Your task to perform on an android device: toggle javascript in the chrome app Image 0: 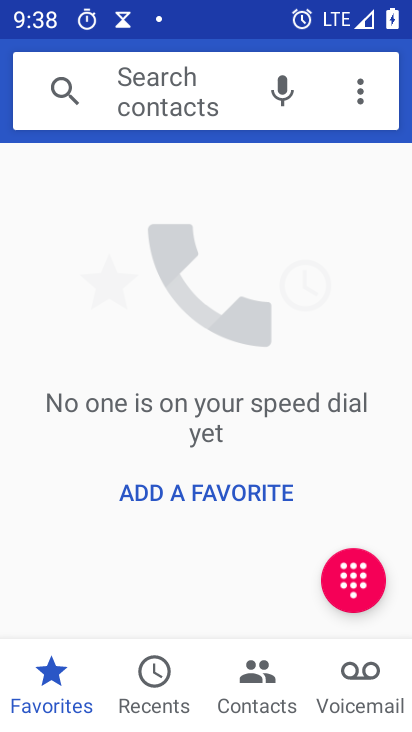
Step 0: press home button
Your task to perform on an android device: toggle javascript in the chrome app Image 1: 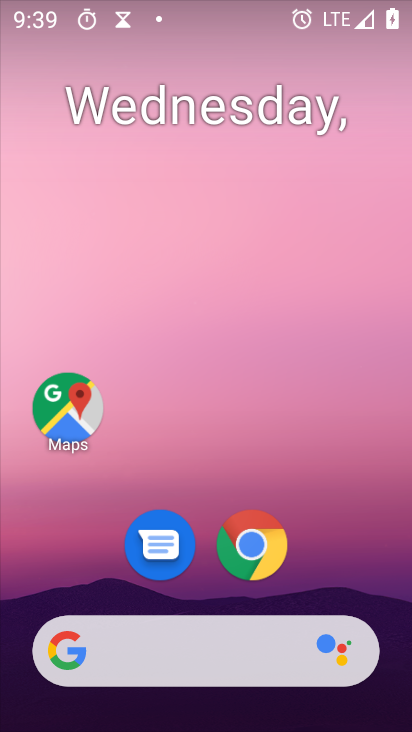
Step 1: click (263, 549)
Your task to perform on an android device: toggle javascript in the chrome app Image 2: 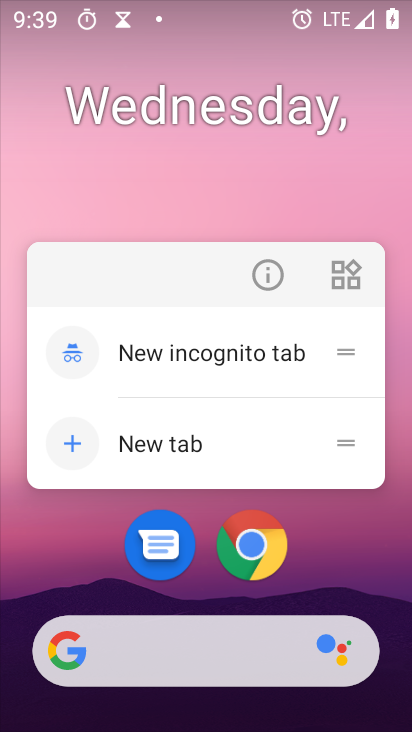
Step 2: click (266, 549)
Your task to perform on an android device: toggle javascript in the chrome app Image 3: 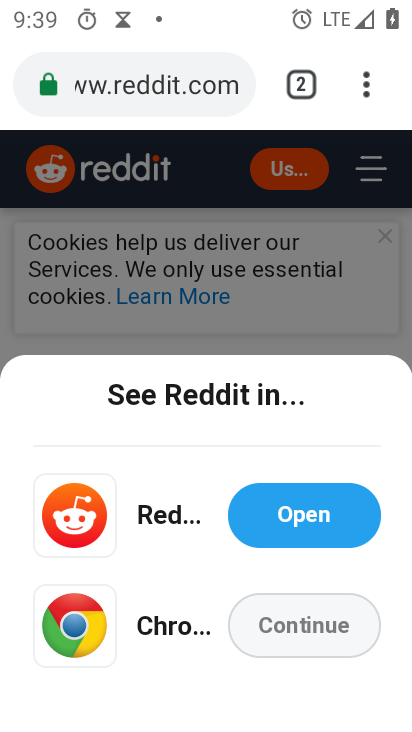
Step 3: drag from (364, 86) to (166, 604)
Your task to perform on an android device: toggle javascript in the chrome app Image 4: 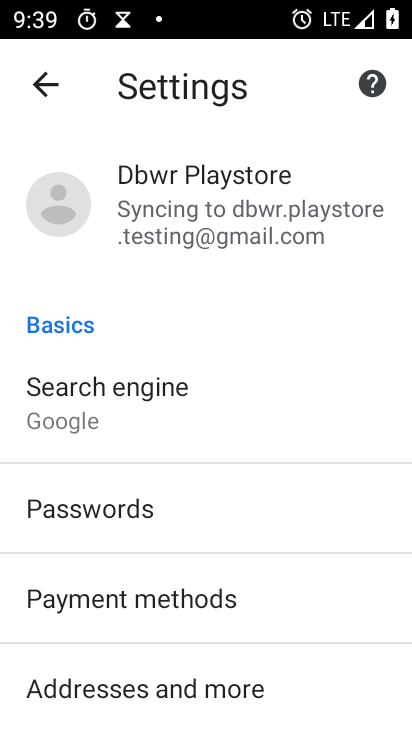
Step 4: drag from (162, 671) to (276, 247)
Your task to perform on an android device: toggle javascript in the chrome app Image 5: 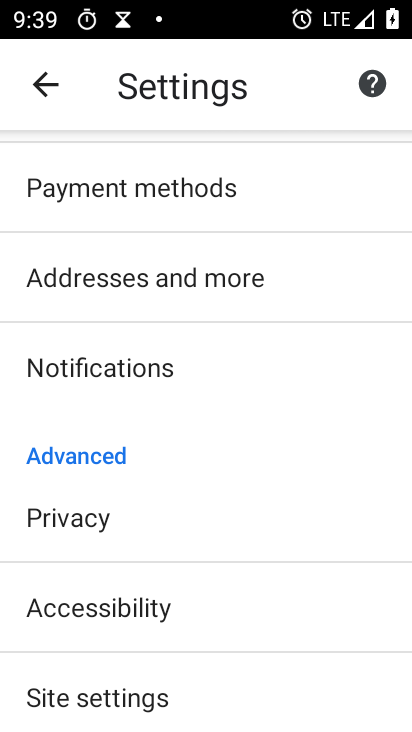
Step 5: drag from (182, 634) to (242, 407)
Your task to perform on an android device: toggle javascript in the chrome app Image 6: 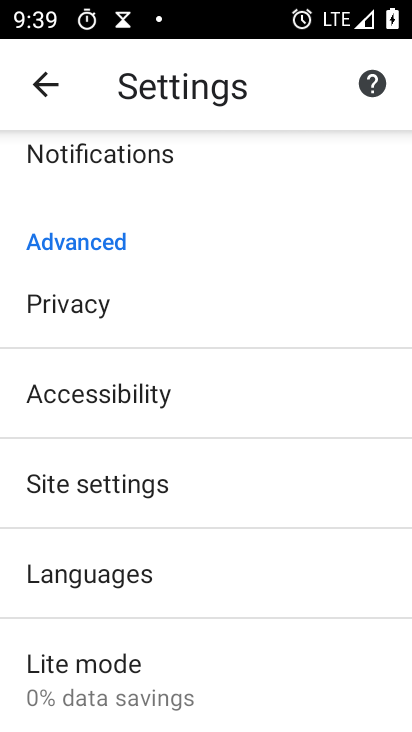
Step 6: click (137, 491)
Your task to perform on an android device: toggle javascript in the chrome app Image 7: 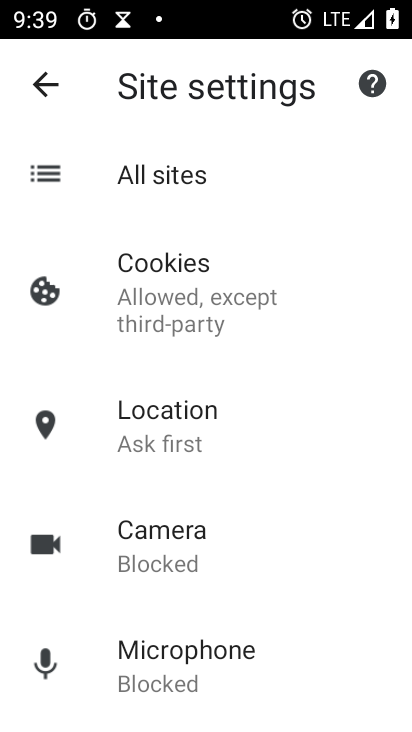
Step 7: drag from (259, 635) to (315, 333)
Your task to perform on an android device: toggle javascript in the chrome app Image 8: 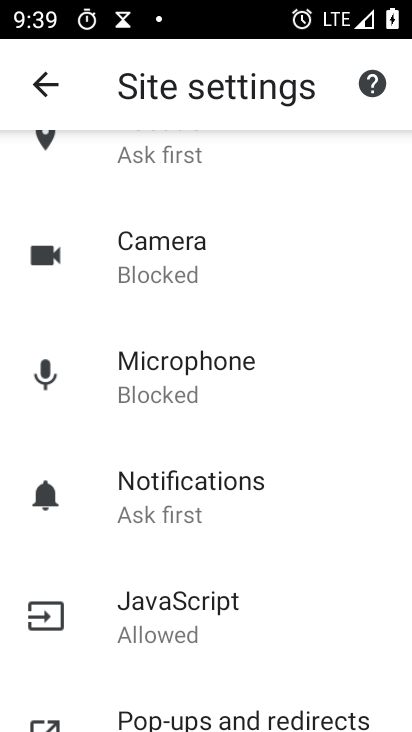
Step 8: click (181, 629)
Your task to perform on an android device: toggle javascript in the chrome app Image 9: 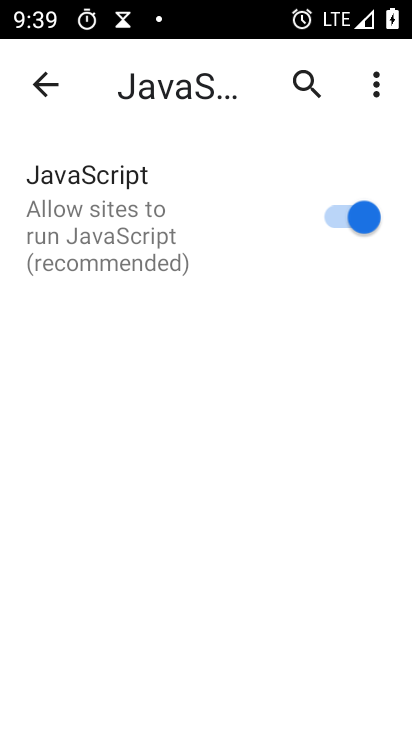
Step 9: click (335, 212)
Your task to perform on an android device: toggle javascript in the chrome app Image 10: 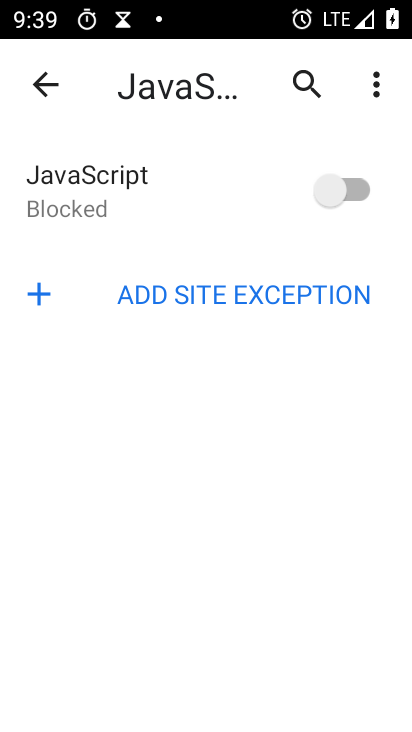
Step 10: task complete